Your task to perform on an android device: Add "usb-c" to the cart on amazon, then select checkout. Image 0: 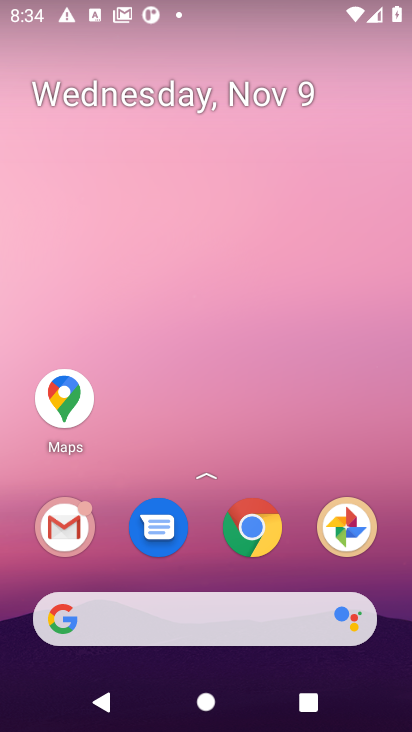
Step 0: click (251, 537)
Your task to perform on an android device: Add "usb-c" to the cart on amazon, then select checkout. Image 1: 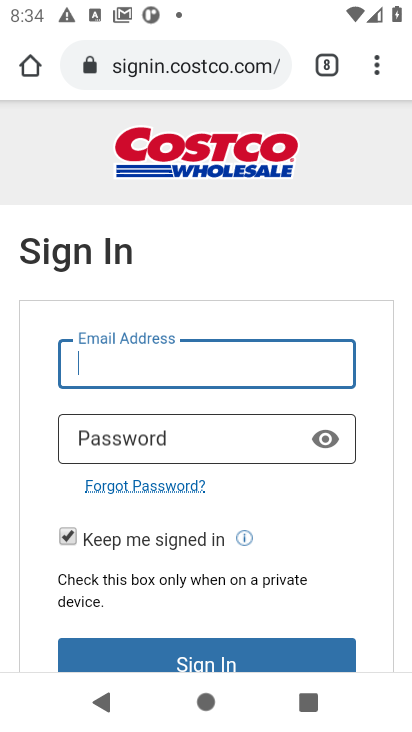
Step 1: click (202, 73)
Your task to perform on an android device: Add "usb-c" to the cart on amazon, then select checkout. Image 2: 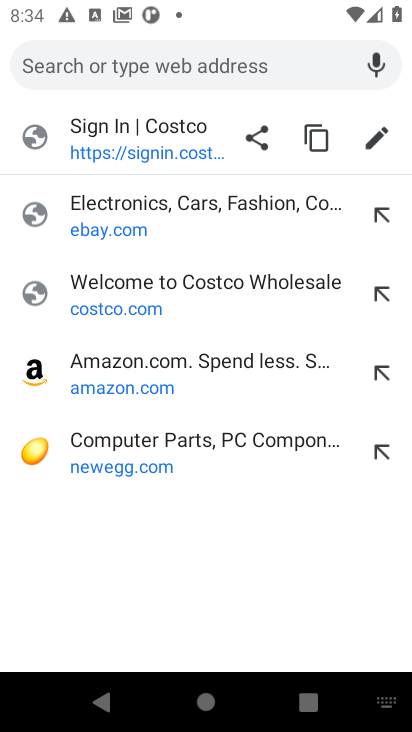
Step 2: click (109, 373)
Your task to perform on an android device: Add "usb-c" to the cart on amazon, then select checkout. Image 3: 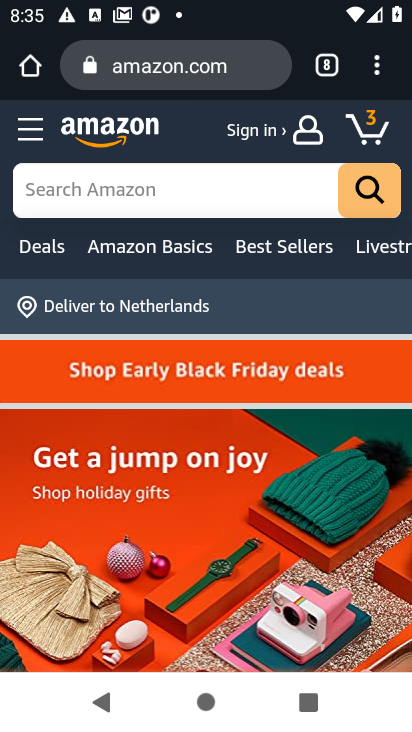
Step 3: click (175, 184)
Your task to perform on an android device: Add "usb-c" to the cart on amazon, then select checkout. Image 4: 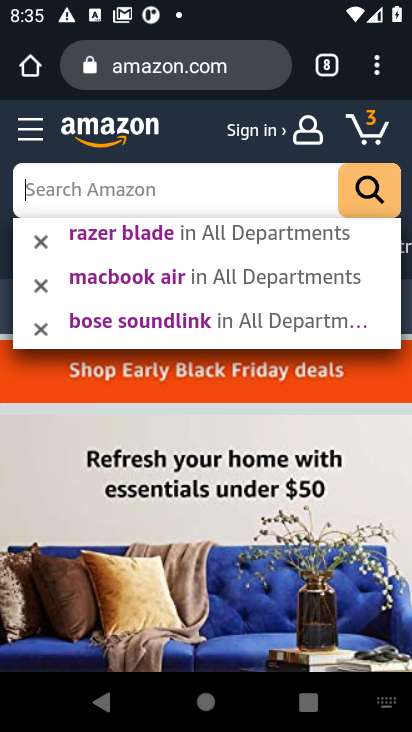
Step 4: type "usb-c"
Your task to perform on an android device: Add "usb-c" to the cart on amazon, then select checkout. Image 5: 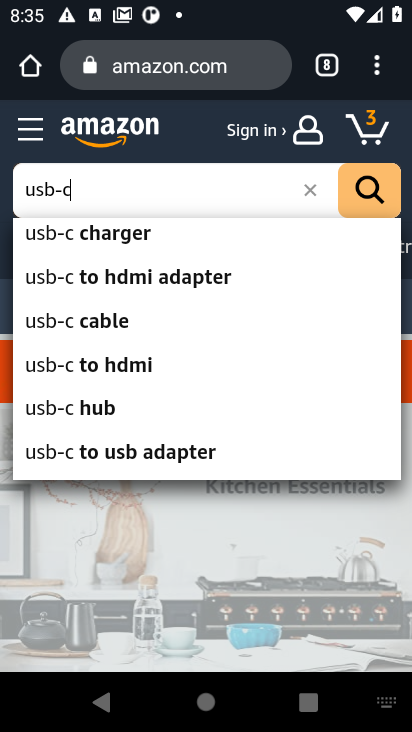
Step 5: click (373, 198)
Your task to perform on an android device: Add "usb-c" to the cart on amazon, then select checkout. Image 6: 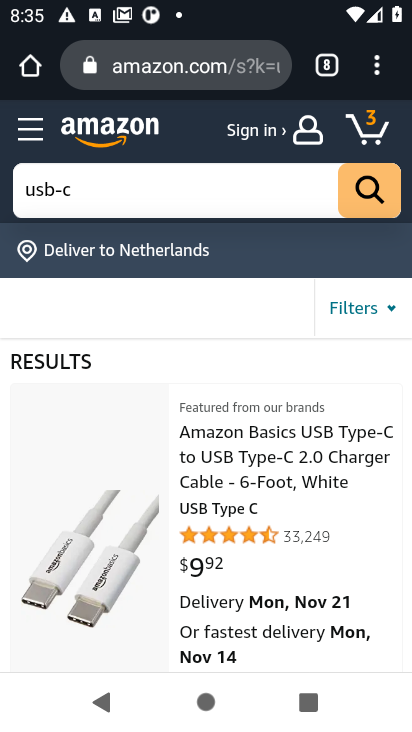
Step 6: drag from (113, 604) to (114, 490)
Your task to perform on an android device: Add "usb-c" to the cart on amazon, then select checkout. Image 7: 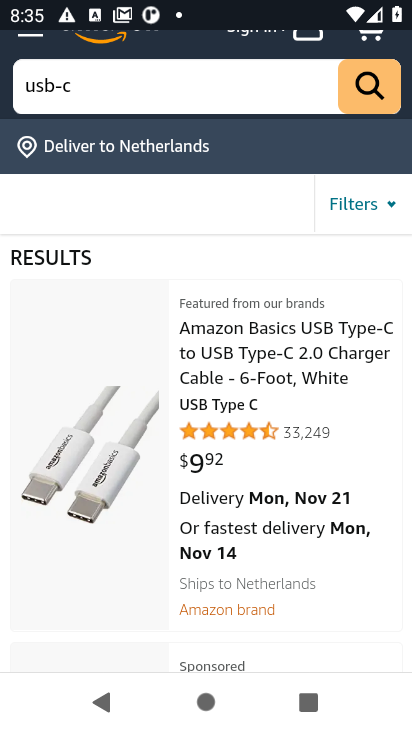
Step 7: drag from (114, 525) to (118, 316)
Your task to perform on an android device: Add "usb-c" to the cart on amazon, then select checkout. Image 8: 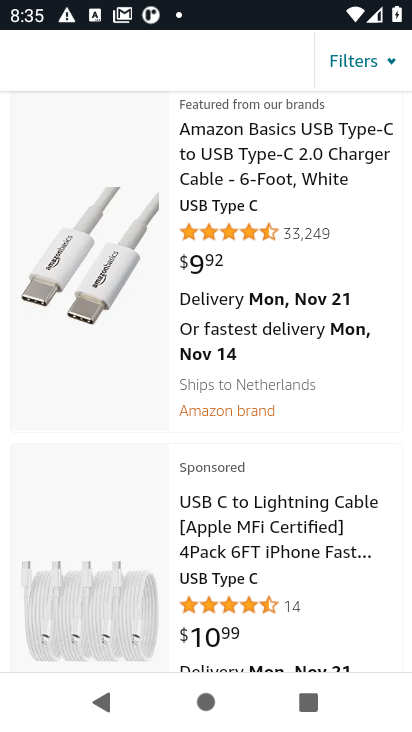
Step 8: click (254, 301)
Your task to perform on an android device: Add "usb-c" to the cart on amazon, then select checkout. Image 9: 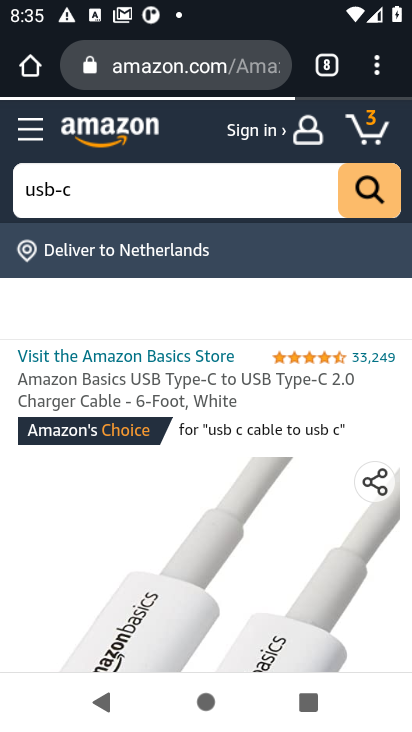
Step 9: drag from (203, 536) to (220, 234)
Your task to perform on an android device: Add "usb-c" to the cart on amazon, then select checkout. Image 10: 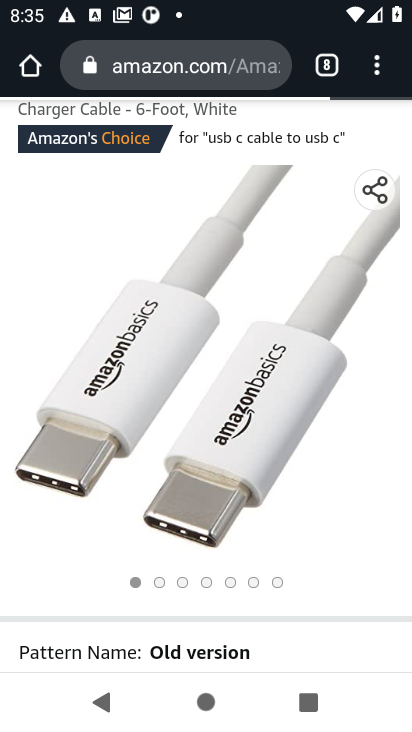
Step 10: drag from (185, 498) to (198, 270)
Your task to perform on an android device: Add "usb-c" to the cart on amazon, then select checkout. Image 11: 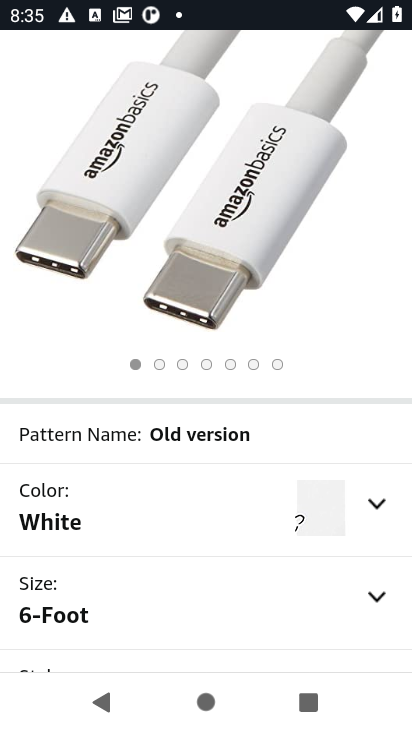
Step 11: drag from (172, 546) to (176, 333)
Your task to perform on an android device: Add "usb-c" to the cart on amazon, then select checkout. Image 12: 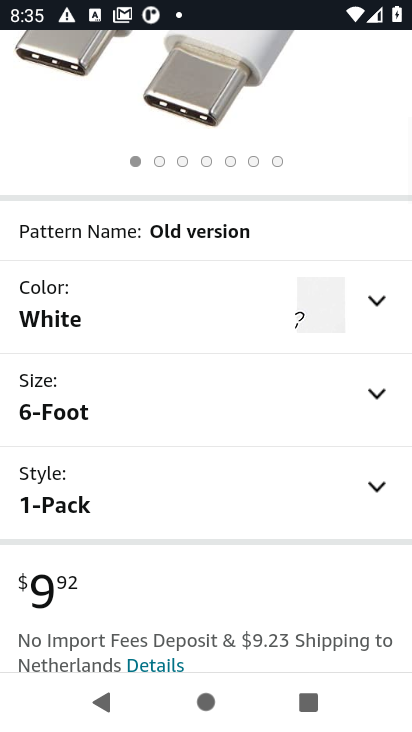
Step 12: drag from (163, 522) to (166, 298)
Your task to perform on an android device: Add "usb-c" to the cart on amazon, then select checkout. Image 13: 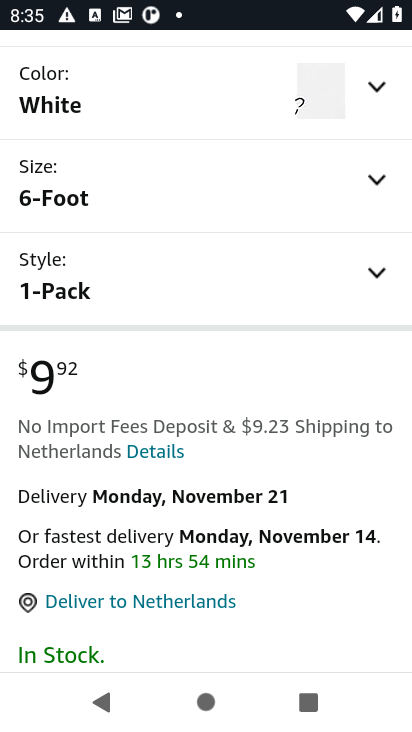
Step 13: drag from (166, 547) to (171, 286)
Your task to perform on an android device: Add "usb-c" to the cart on amazon, then select checkout. Image 14: 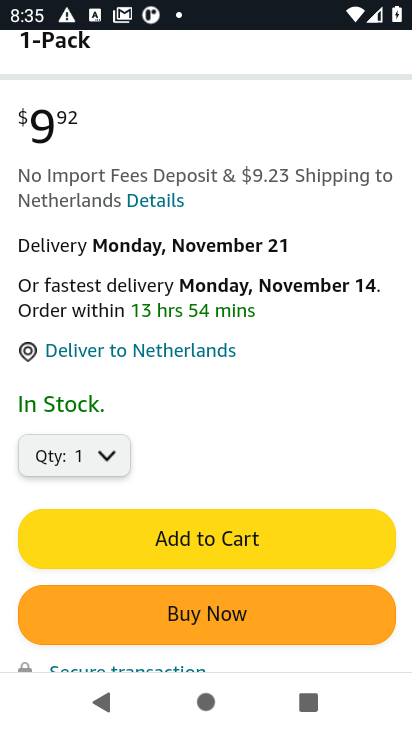
Step 14: click (185, 547)
Your task to perform on an android device: Add "usb-c" to the cart on amazon, then select checkout. Image 15: 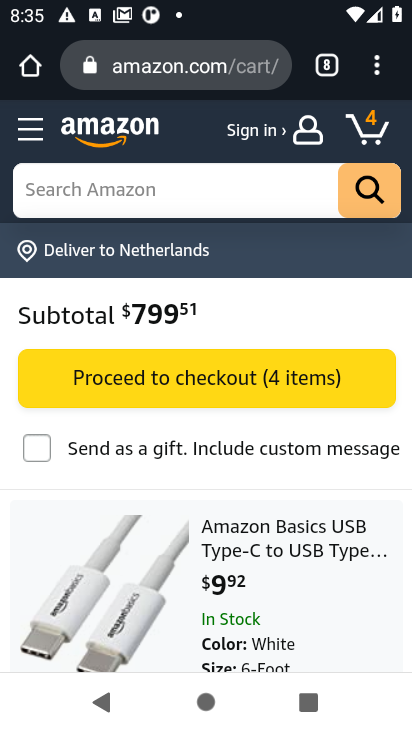
Step 15: click (255, 374)
Your task to perform on an android device: Add "usb-c" to the cart on amazon, then select checkout. Image 16: 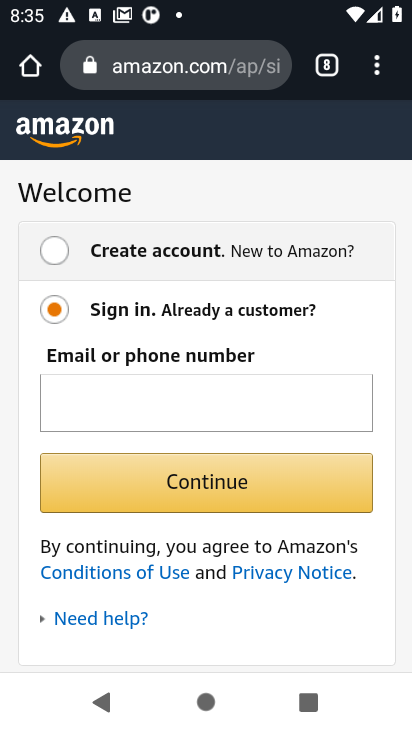
Step 16: task complete